Your task to perform on an android device: Search for Italian restaurants on Maps Image 0: 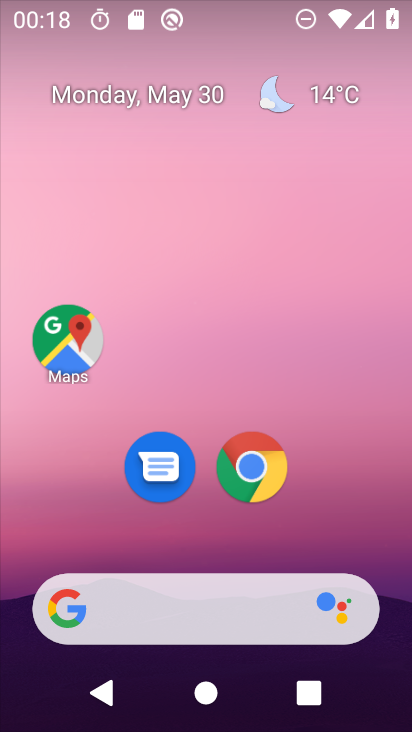
Step 0: click (62, 343)
Your task to perform on an android device: Search for Italian restaurants on Maps Image 1: 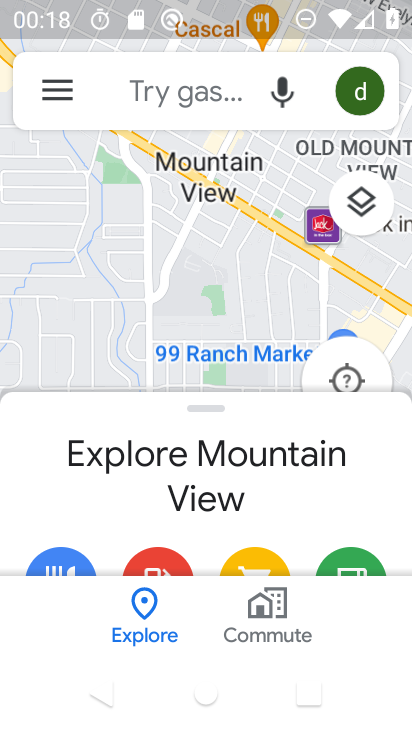
Step 1: click (159, 93)
Your task to perform on an android device: Search for Italian restaurants on Maps Image 2: 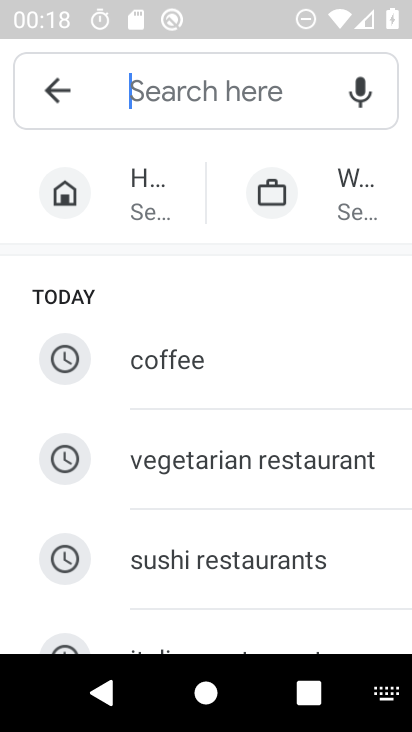
Step 2: type "Italian restaurants"
Your task to perform on an android device: Search for Italian restaurants on Maps Image 3: 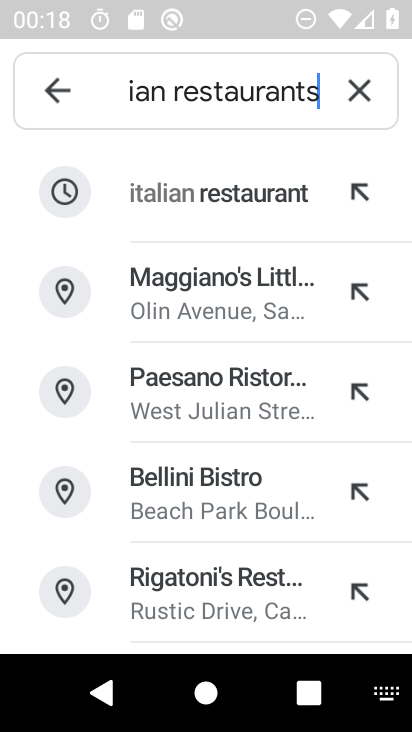
Step 3: click (244, 194)
Your task to perform on an android device: Search for Italian restaurants on Maps Image 4: 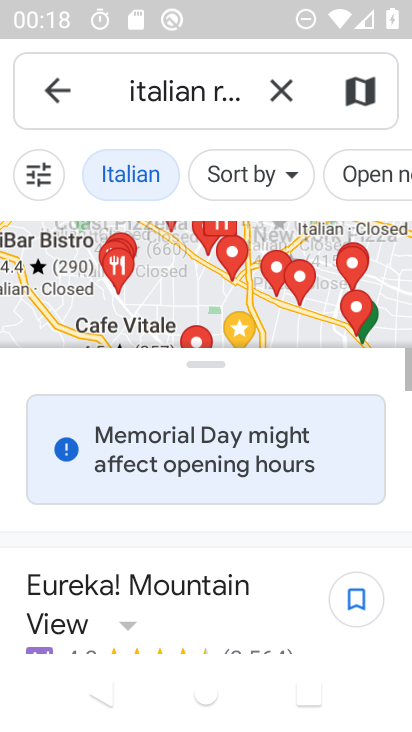
Step 4: task complete